Your task to perform on an android device: toggle pop-ups in chrome Image 0: 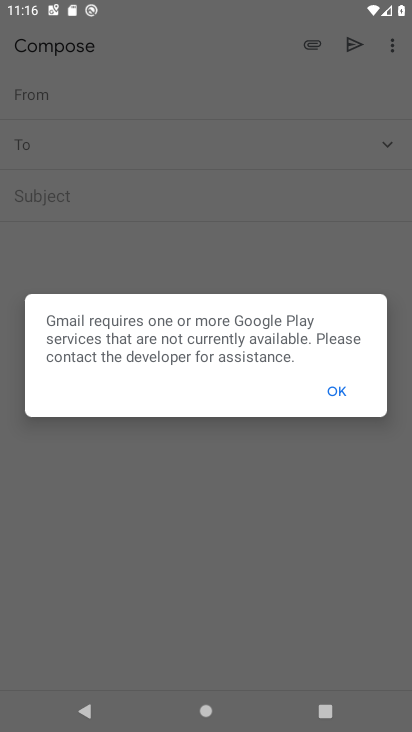
Step 0: click (339, 386)
Your task to perform on an android device: toggle pop-ups in chrome Image 1: 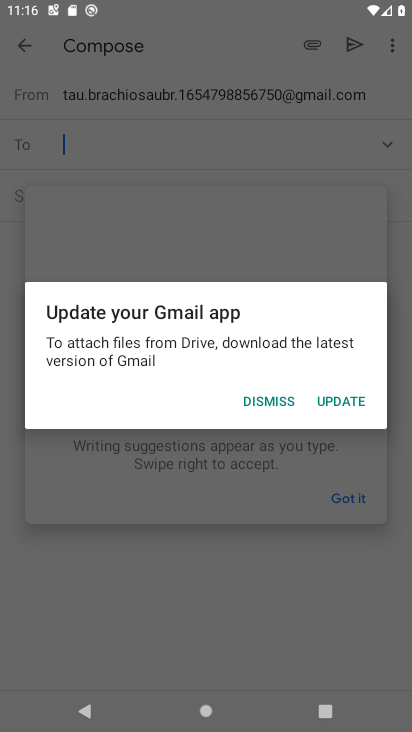
Step 1: press back button
Your task to perform on an android device: toggle pop-ups in chrome Image 2: 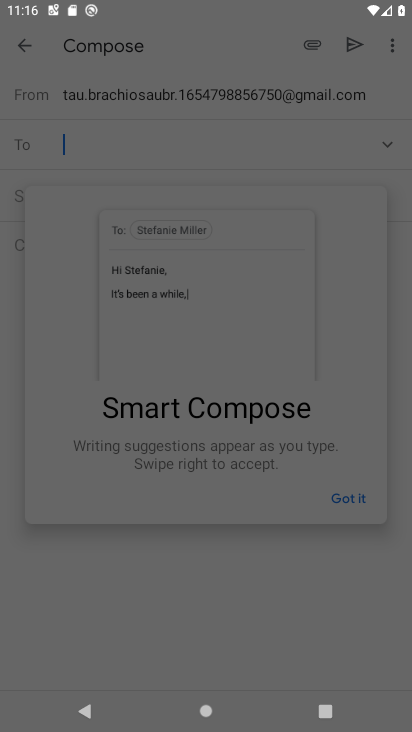
Step 2: click (259, 399)
Your task to perform on an android device: toggle pop-ups in chrome Image 3: 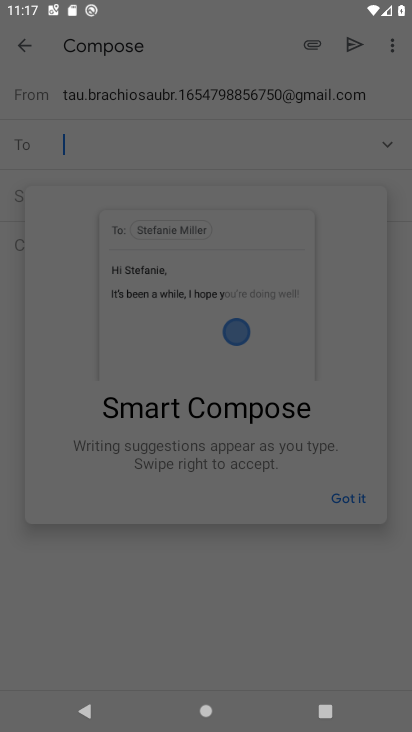
Step 3: click (353, 501)
Your task to perform on an android device: toggle pop-ups in chrome Image 4: 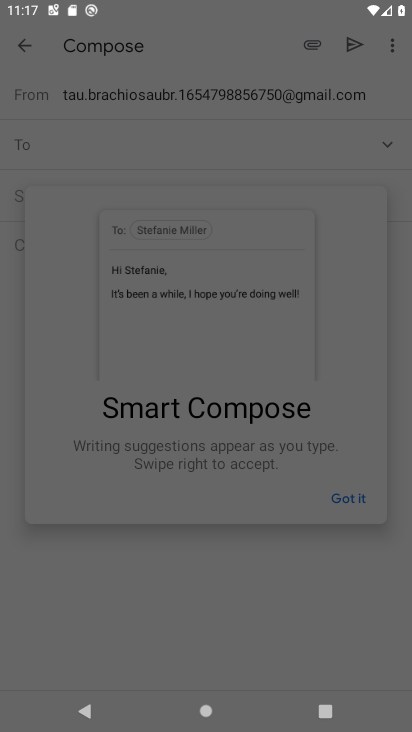
Step 4: click (353, 501)
Your task to perform on an android device: toggle pop-ups in chrome Image 5: 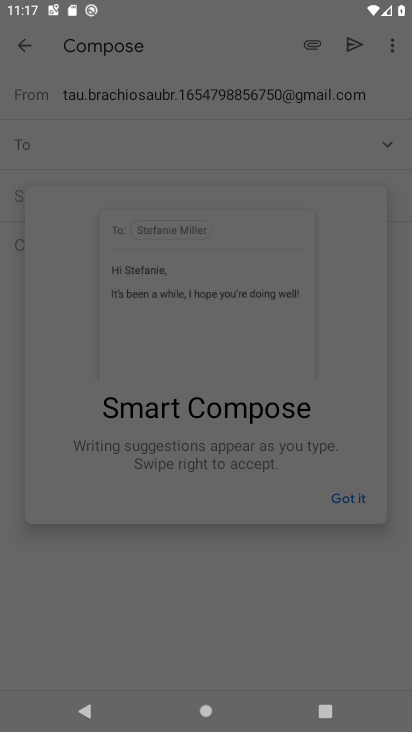
Step 5: press back button
Your task to perform on an android device: toggle pop-ups in chrome Image 6: 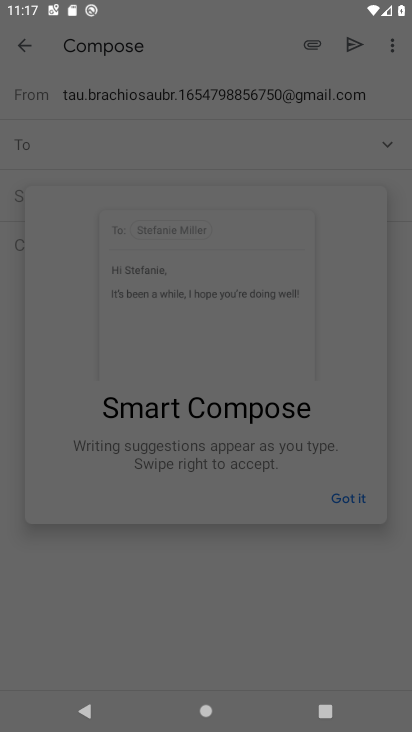
Step 6: click (323, 500)
Your task to perform on an android device: toggle pop-ups in chrome Image 7: 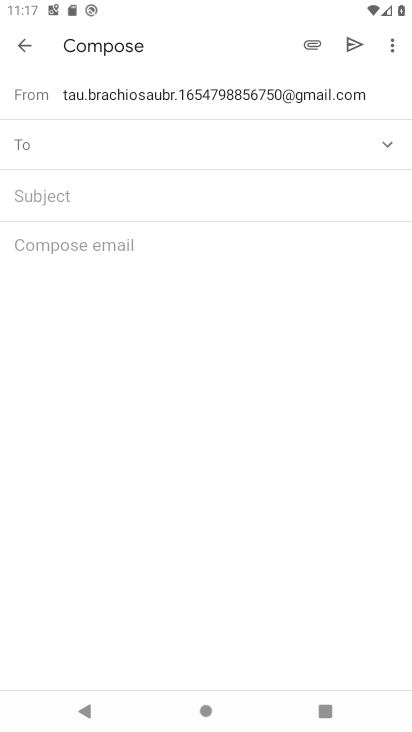
Step 7: click (30, 51)
Your task to perform on an android device: toggle pop-ups in chrome Image 8: 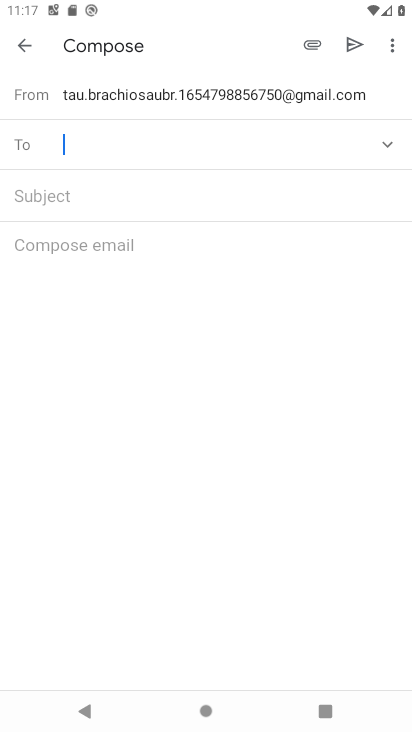
Step 8: click (31, 50)
Your task to perform on an android device: toggle pop-ups in chrome Image 9: 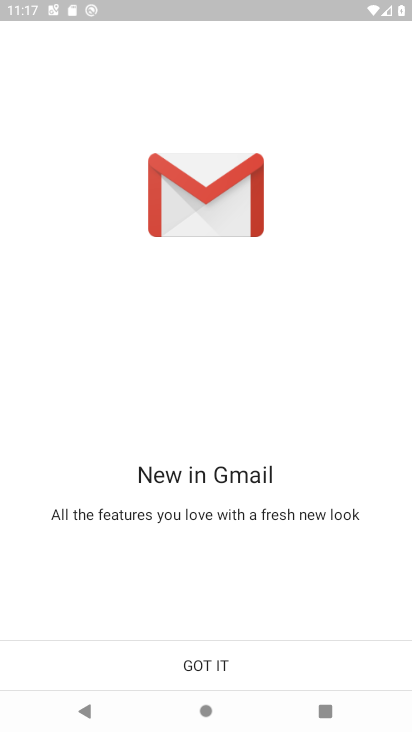
Step 9: press back button
Your task to perform on an android device: toggle pop-ups in chrome Image 10: 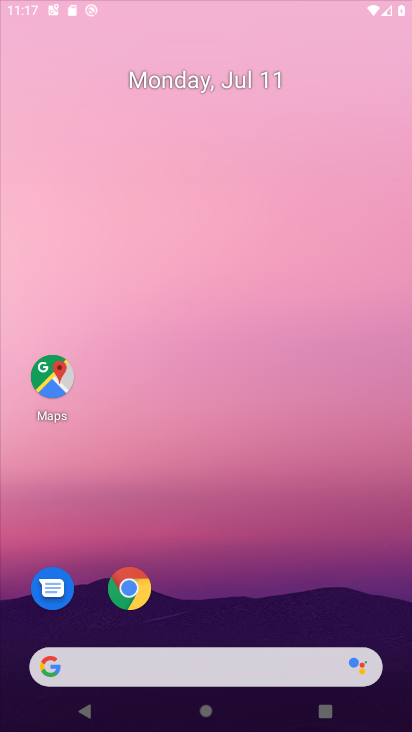
Step 10: click (220, 669)
Your task to perform on an android device: toggle pop-ups in chrome Image 11: 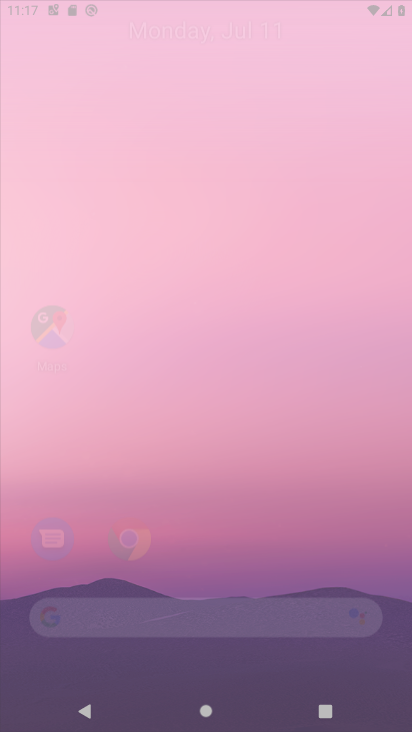
Step 11: drag from (291, 577) to (324, 215)
Your task to perform on an android device: toggle pop-ups in chrome Image 12: 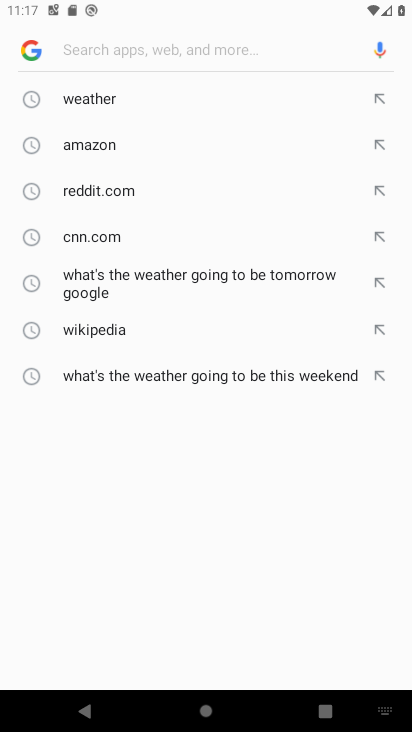
Step 12: press back button
Your task to perform on an android device: toggle pop-ups in chrome Image 13: 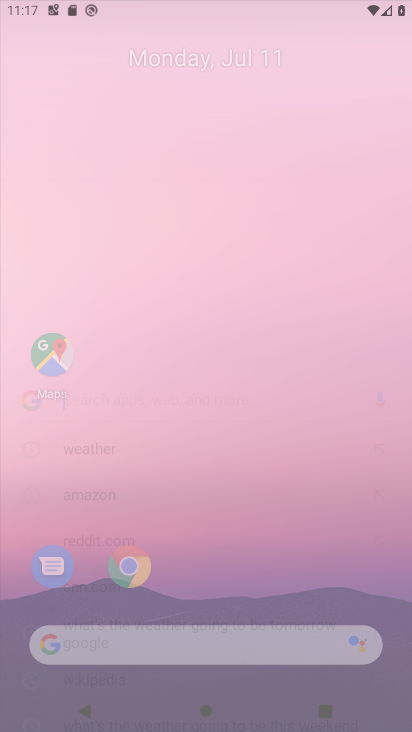
Step 13: press back button
Your task to perform on an android device: toggle pop-ups in chrome Image 14: 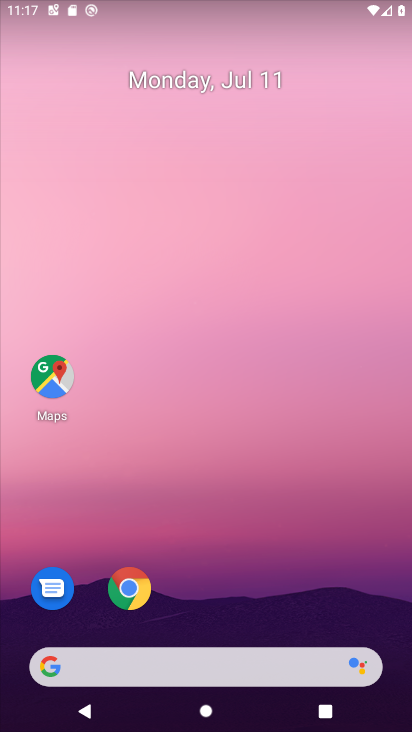
Step 14: drag from (243, 477) to (194, 121)
Your task to perform on an android device: toggle pop-ups in chrome Image 15: 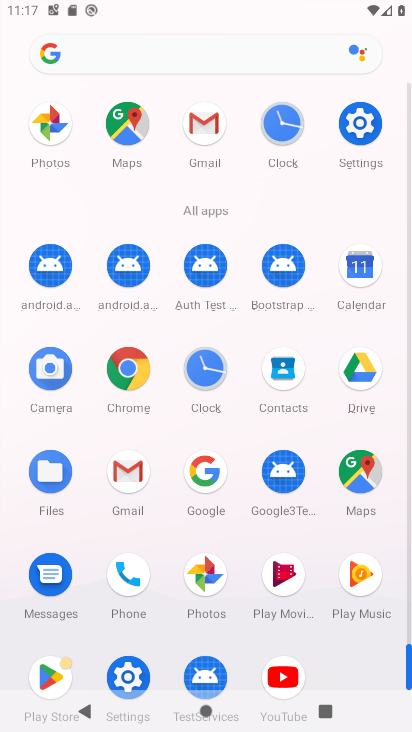
Step 15: click (125, 368)
Your task to perform on an android device: toggle pop-ups in chrome Image 16: 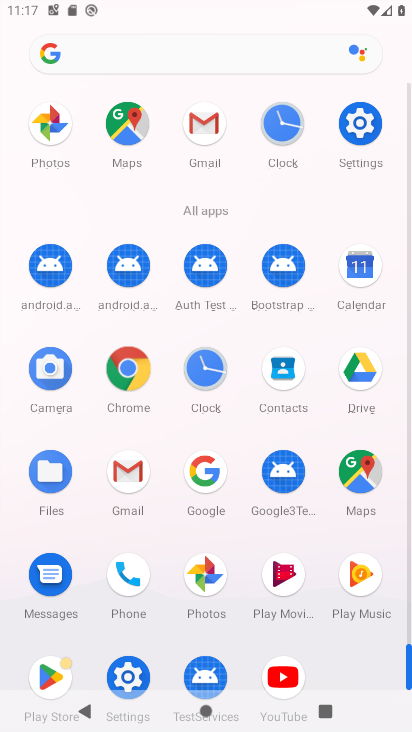
Step 16: click (128, 358)
Your task to perform on an android device: toggle pop-ups in chrome Image 17: 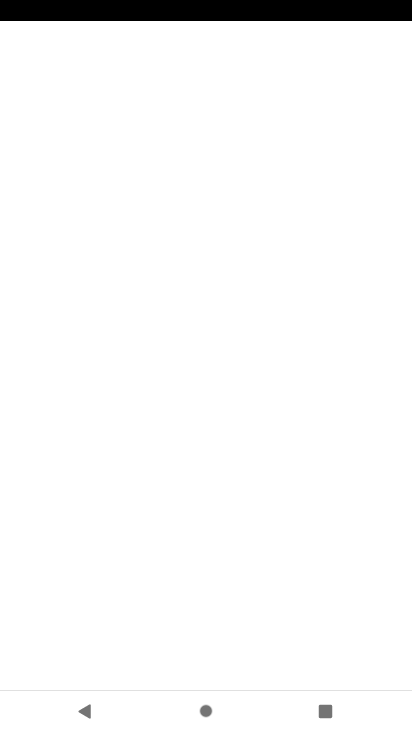
Step 17: click (130, 343)
Your task to perform on an android device: toggle pop-ups in chrome Image 18: 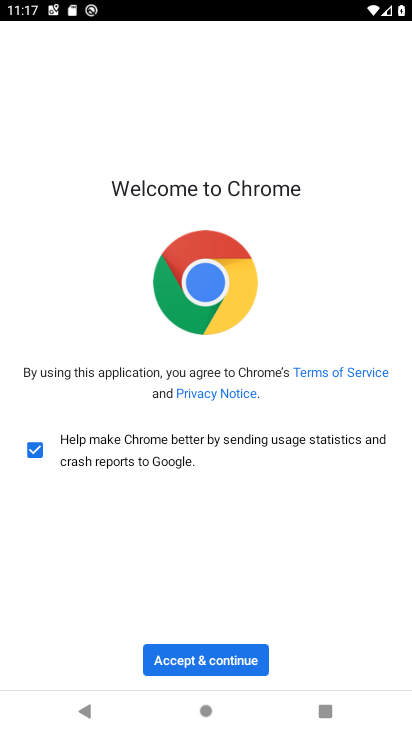
Step 18: click (187, 658)
Your task to perform on an android device: toggle pop-ups in chrome Image 19: 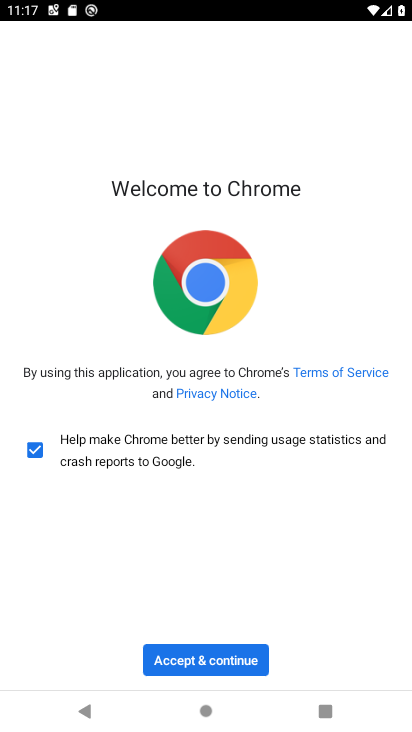
Step 19: click (187, 659)
Your task to perform on an android device: toggle pop-ups in chrome Image 20: 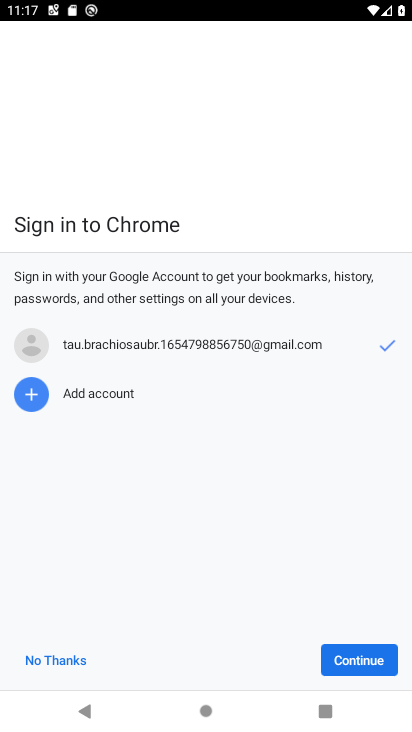
Step 20: click (211, 661)
Your task to perform on an android device: toggle pop-ups in chrome Image 21: 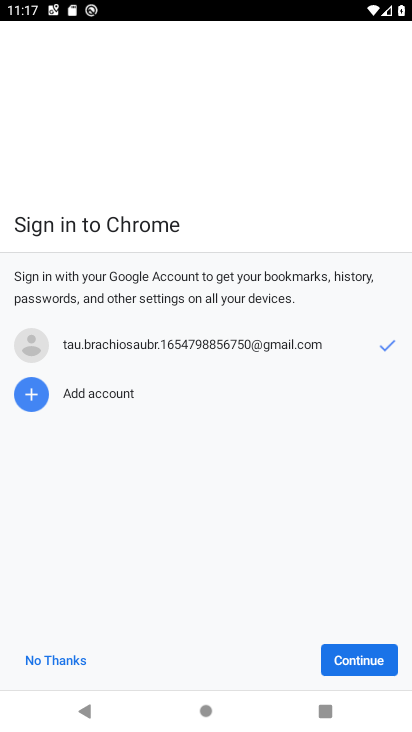
Step 21: click (365, 655)
Your task to perform on an android device: toggle pop-ups in chrome Image 22: 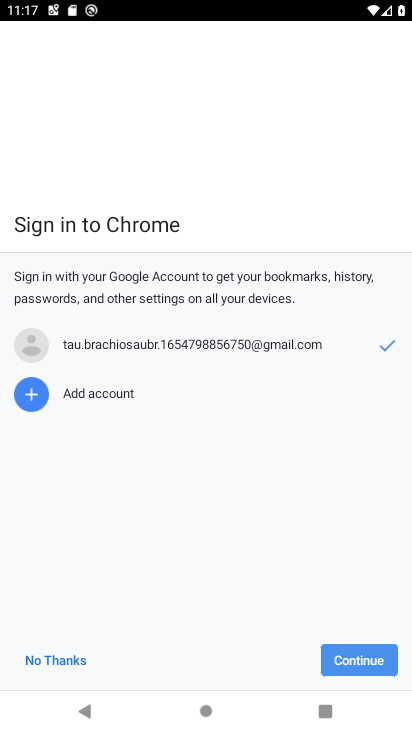
Step 22: click (364, 658)
Your task to perform on an android device: toggle pop-ups in chrome Image 23: 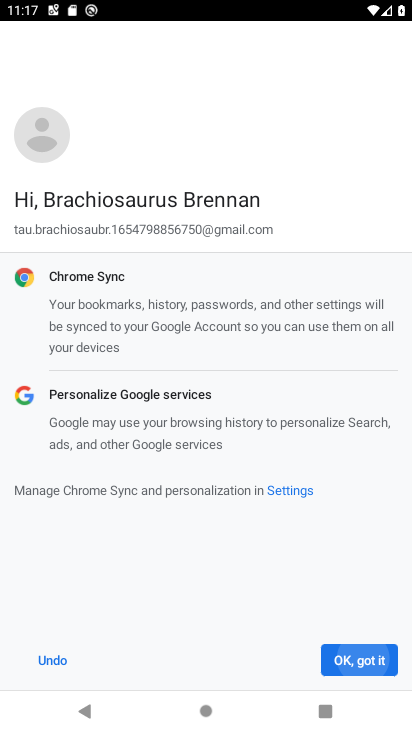
Step 23: click (375, 654)
Your task to perform on an android device: toggle pop-ups in chrome Image 24: 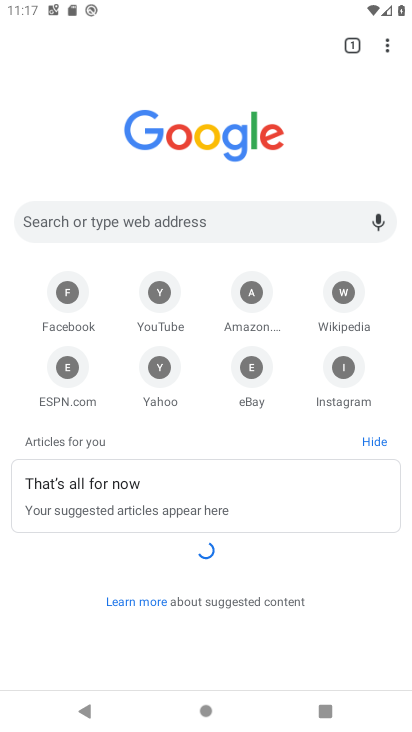
Step 24: drag from (396, 46) to (223, 374)
Your task to perform on an android device: toggle pop-ups in chrome Image 25: 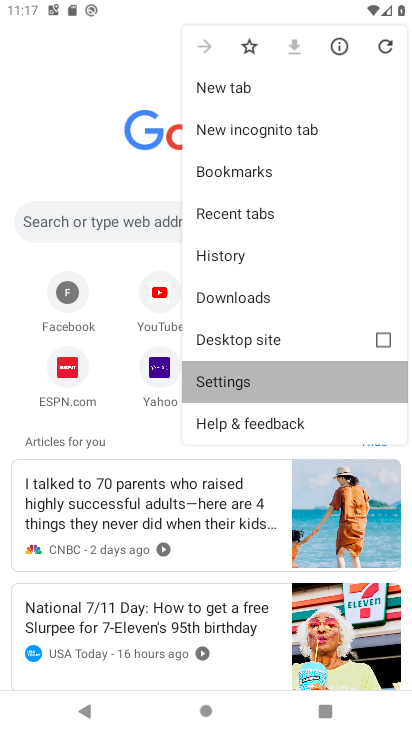
Step 25: click (222, 380)
Your task to perform on an android device: toggle pop-ups in chrome Image 26: 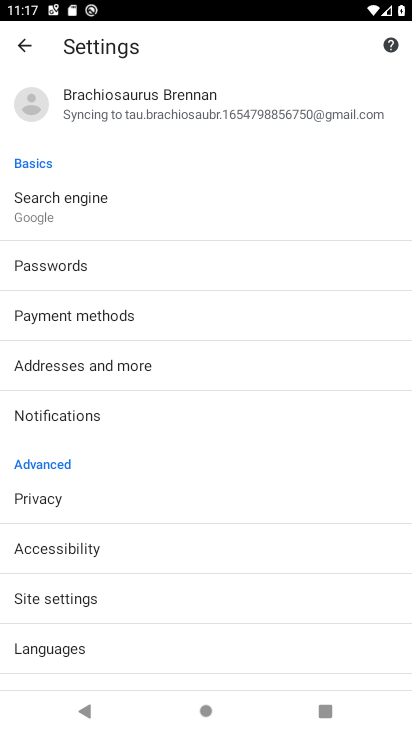
Step 26: click (47, 589)
Your task to perform on an android device: toggle pop-ups in chrome Image 27: 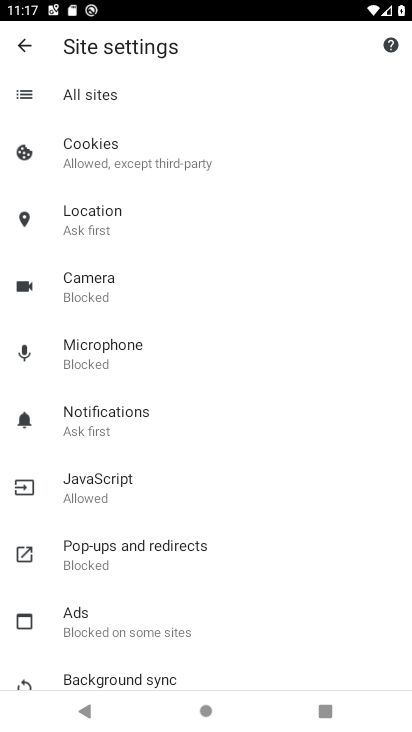
Step 27: click (106, 549)
Your task to perform on an android device: toggle pop-ups in chrome Image 28: 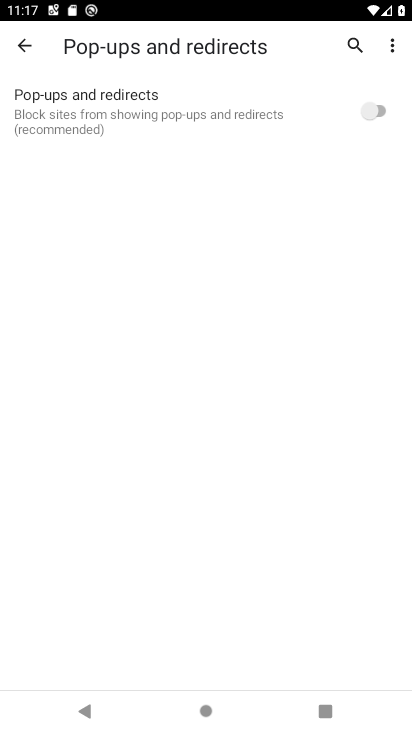
Step 28: click (372, 107)
Your task to perform on an android device: toggle pop-ups in chrome Image 29: 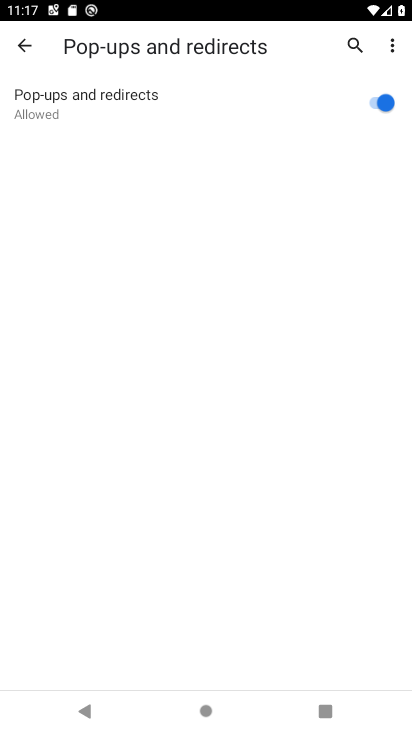
Step 29: task complete